Your task to perform on an android device: turn off notifications in google photos Image 0: 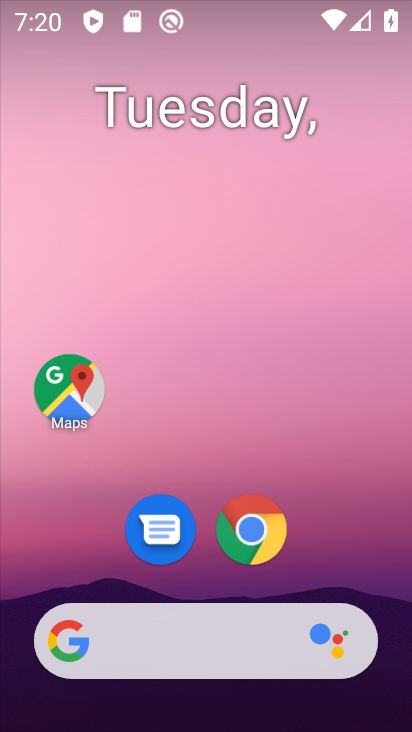
Step 0: drag from (151, 637) to (296, 98)
Your task to perform on an android device: turn off notifications in google photos Image 1: 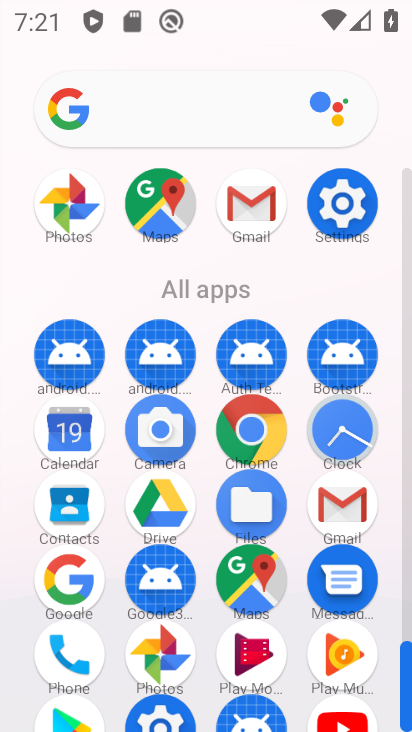
Step 1: click (70, 211)
Your task to perform on an android device: turn off notifications in google photos Image 2: 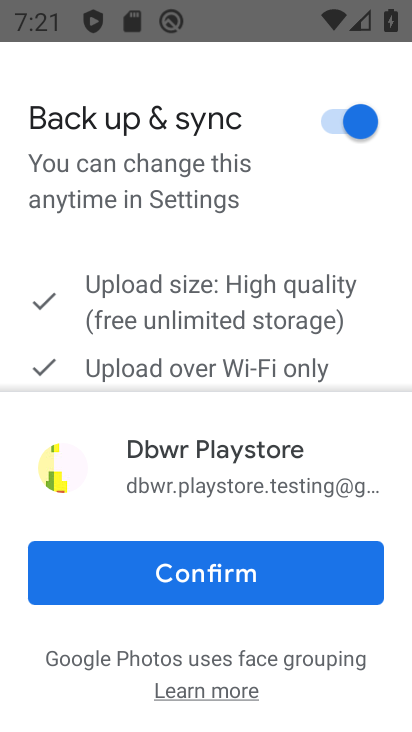
Step 2: click (197, 579)
Your task to perform on an android device: turn off notifications in google photos Image 3: 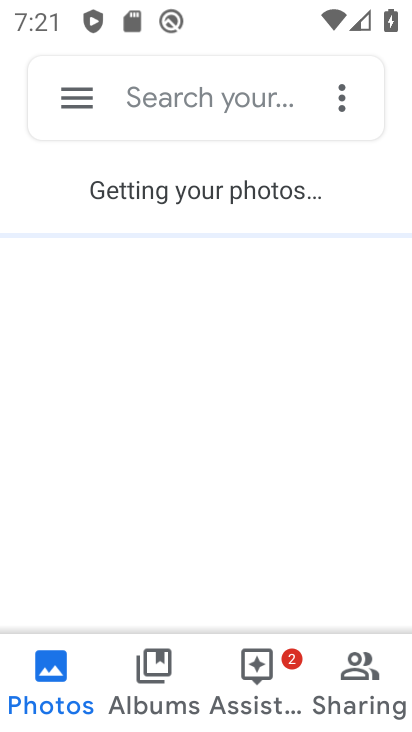
Step 3: click (77, 98)
Your task to perform on an android device: turn off notifications in google photos Image 4: 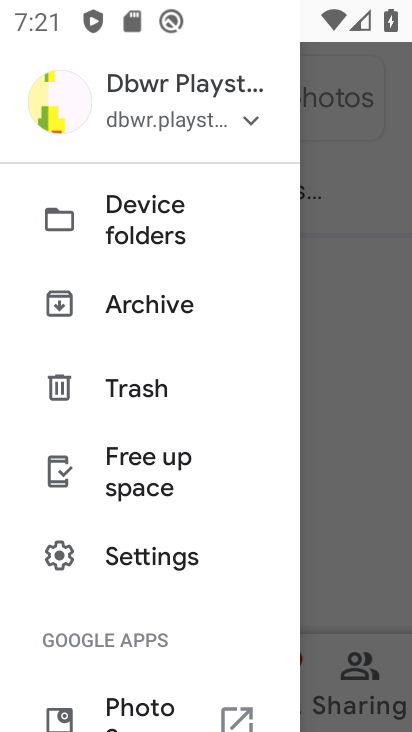
Step 4: click (142, 554)
Your task to perform on an android device: turn off notifications in google photos Image 5: 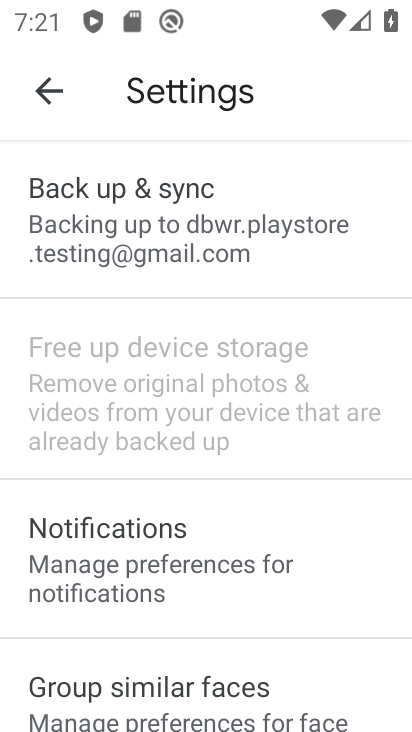
Step 5: click (133, 548)
Your task to perform on an android device: turn off notifications in google photos Image 6: 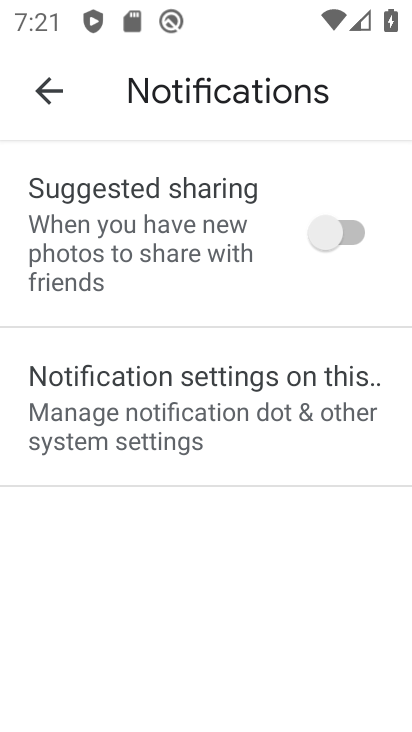
Step 6: click (245, 418)
Your task to perform on an android device: turn off notifications in google photos Image 7: 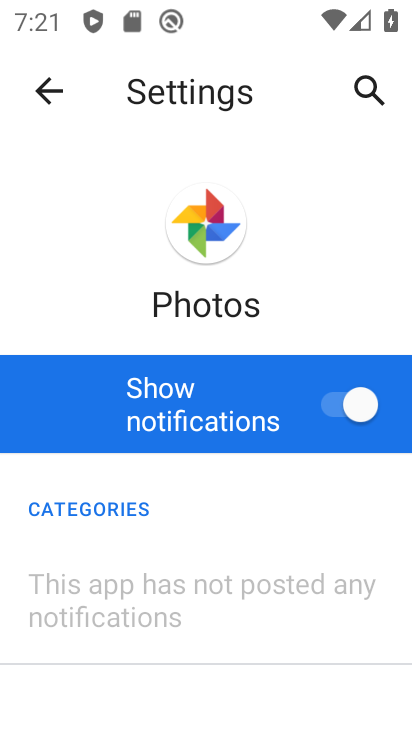
Step 7: click (329, 405)
Your task to perform on an android device: turn off notifications in google photos Image 8: 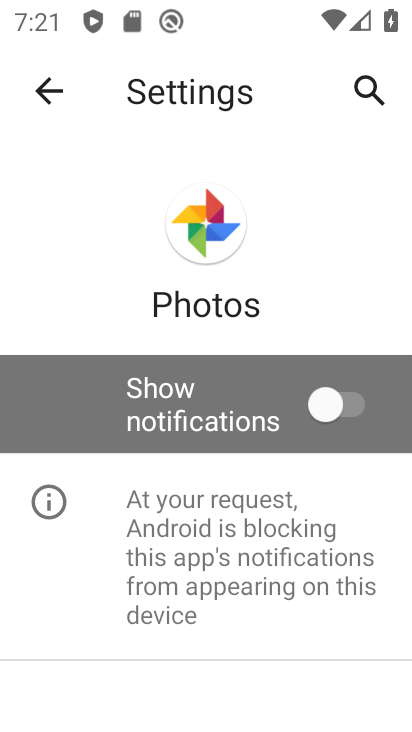
Step 8: task complete